Your task to perform on an android device: open app "Google News" Image 0: 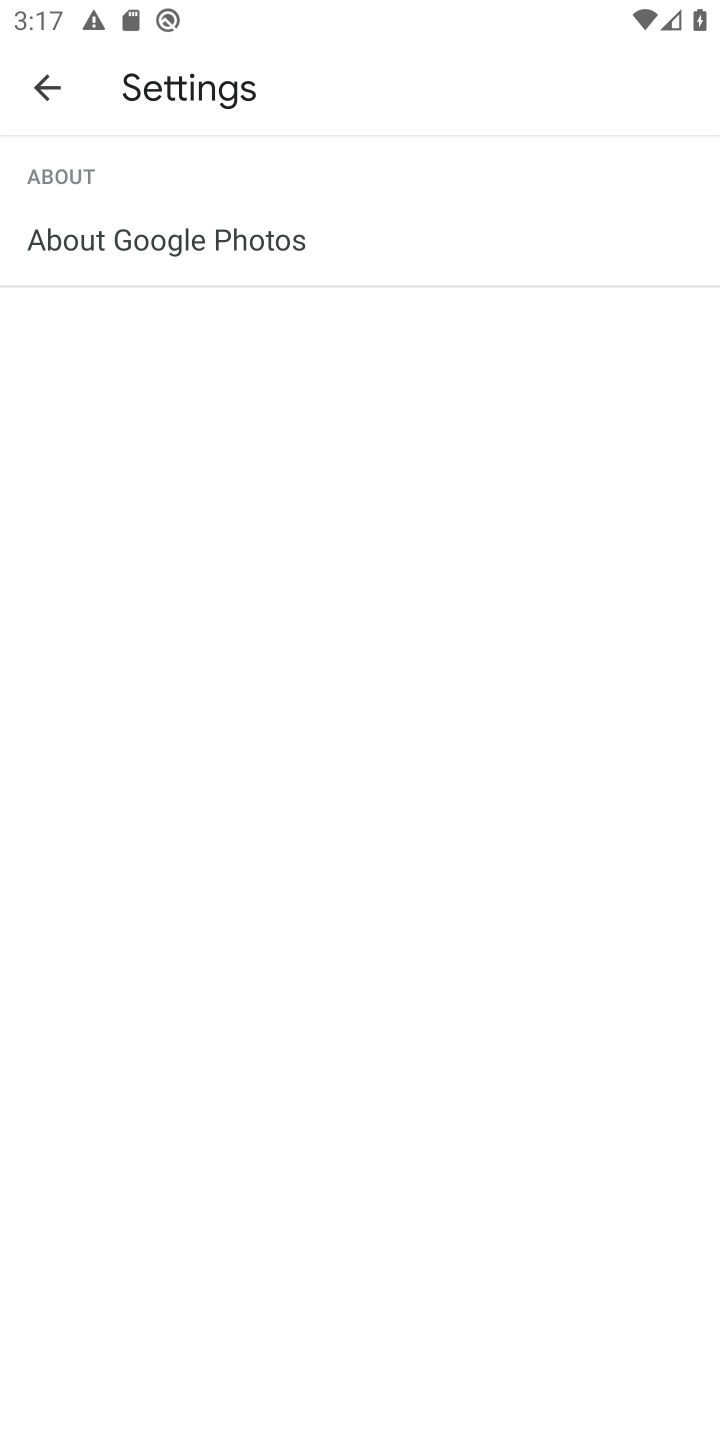
Step 0: press home button
Your task to perform on an android device: open app "Google News" Image 1: 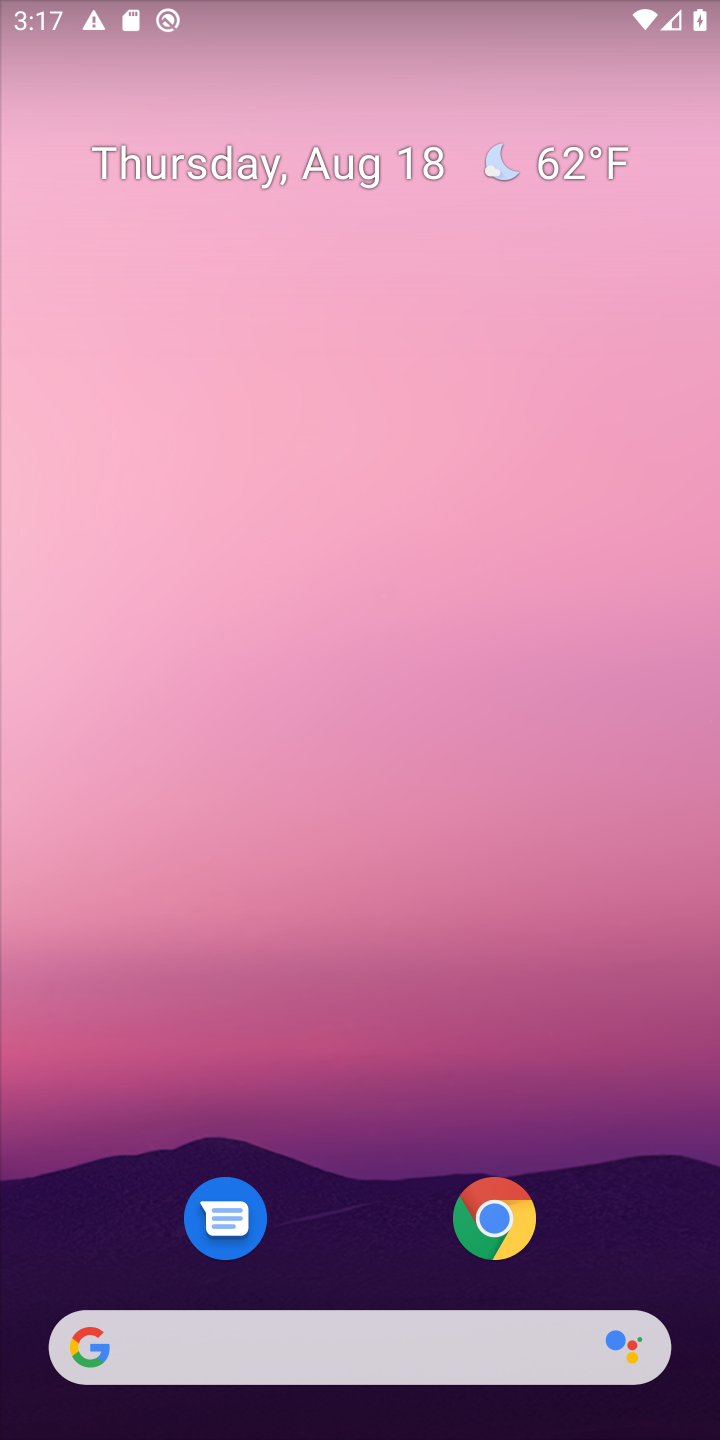
Step 1: drag from (350, 655) to (350, 239)
Your task to perform on an android device: open app "Google News" Image 2: 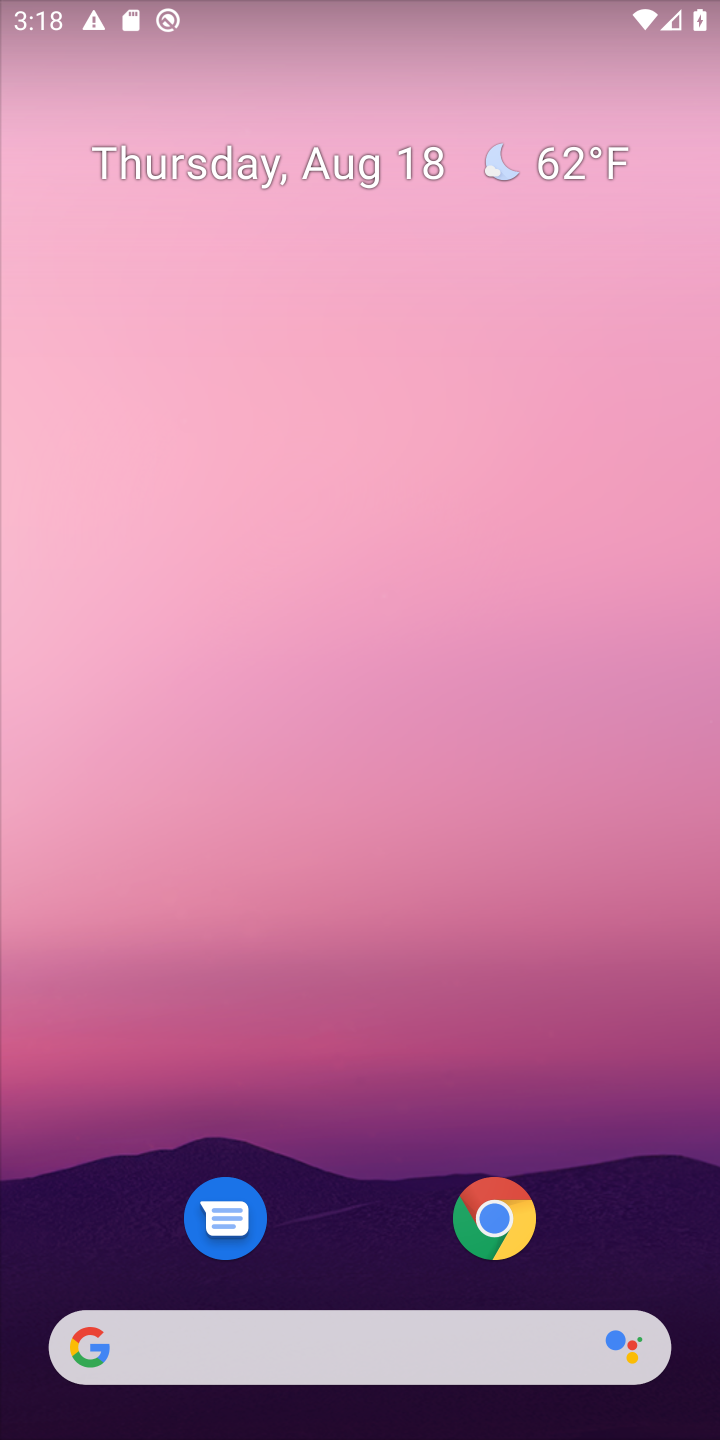
Step 2: drag from (344, 1103) to (304, 269)
Your task to perform on an android device: open app "Google News" Image 3: 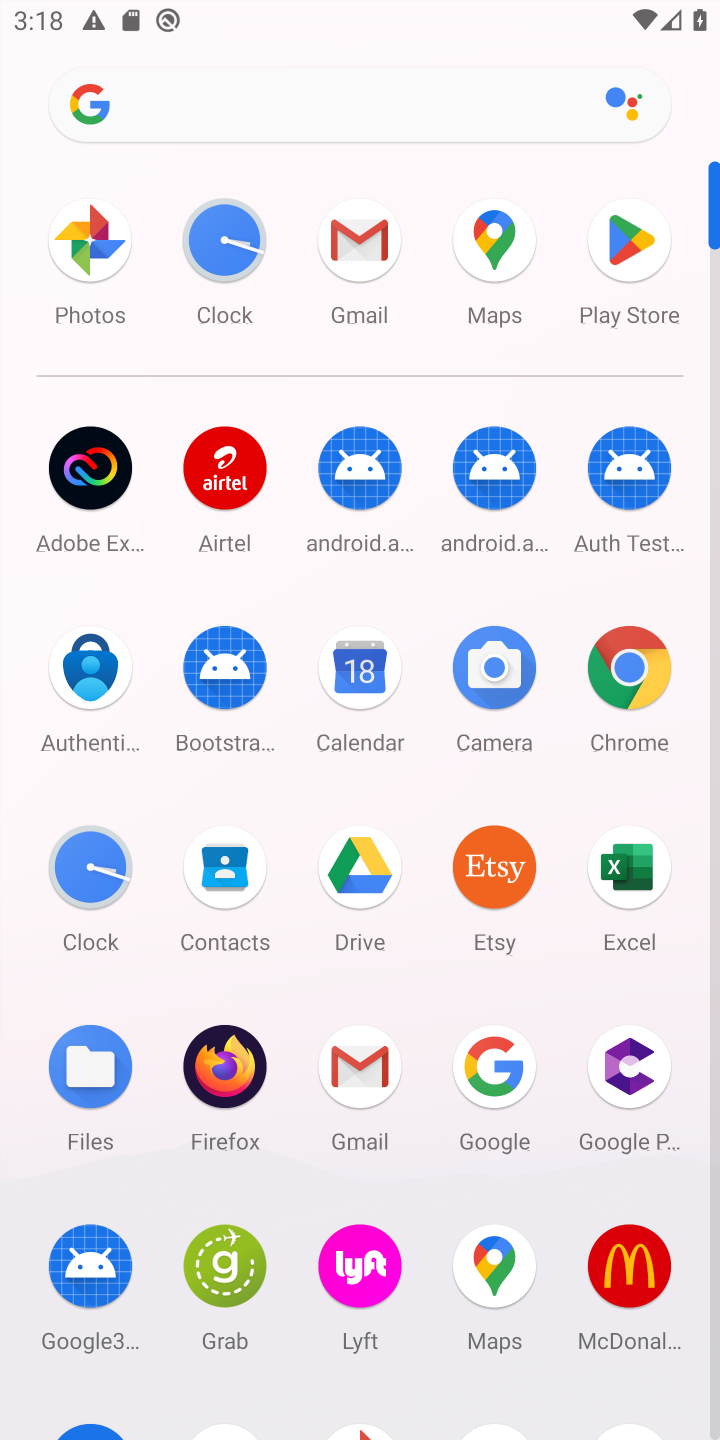
Step 3: click (616, 242)
Your task to perform on an android device: open app "Google News" Image 4: 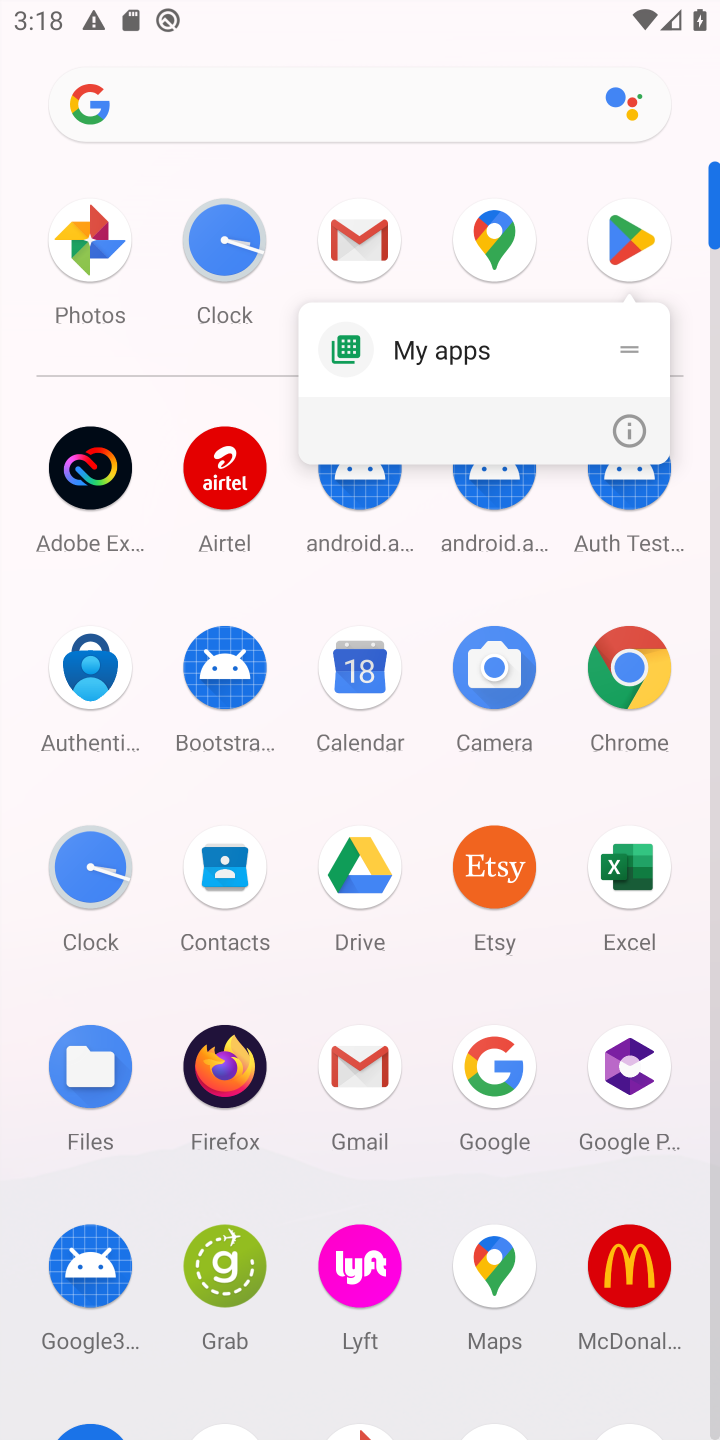
Step 4: click (612, 244)
Your task to perform on an android device: open app "Google News" Image 5: 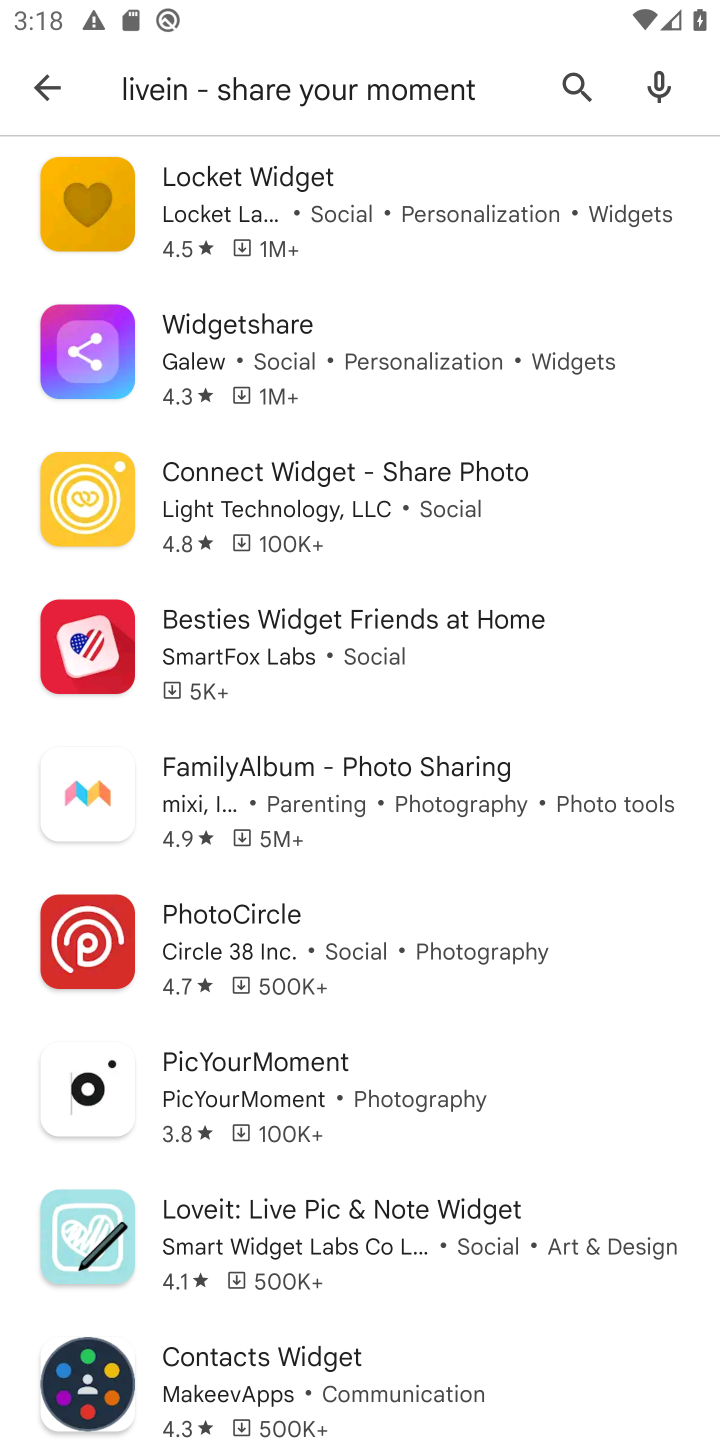
Step 5: click (566, 69)
Your task to perform on an android device: open app "Google News" Image 6: 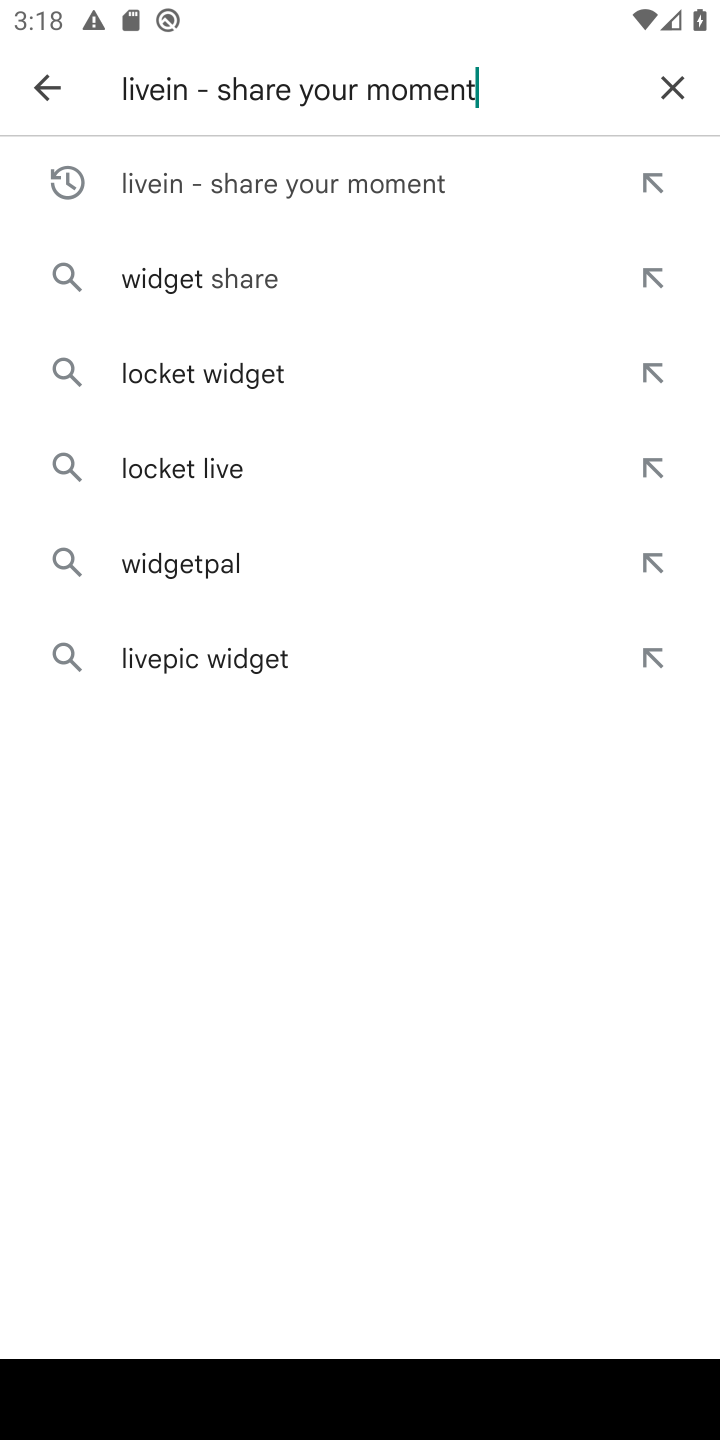
Step 6: click (655, 69)
Your task to perform on an android device: open app "Google News" Image 7: 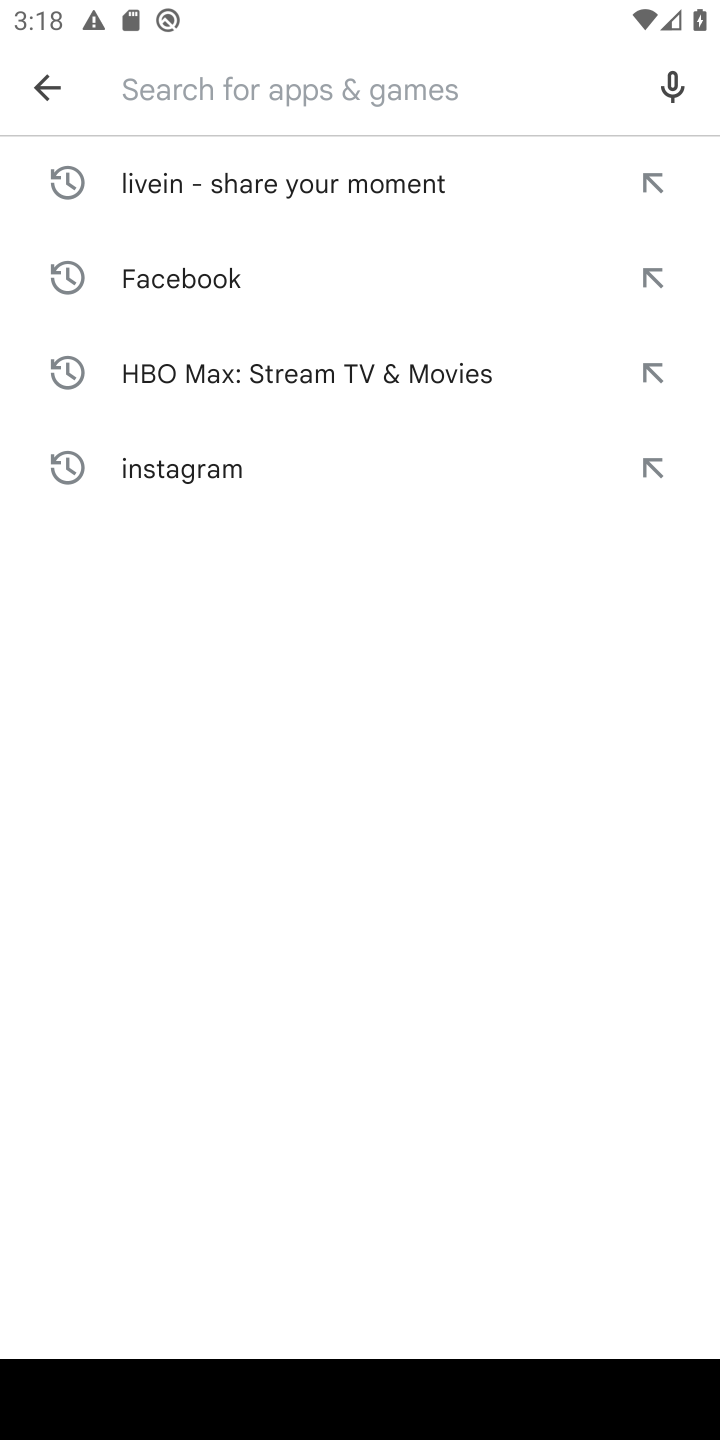
Step 7: type "Google News"
Your task to perform on an android device: open app "Google News" Image 8: 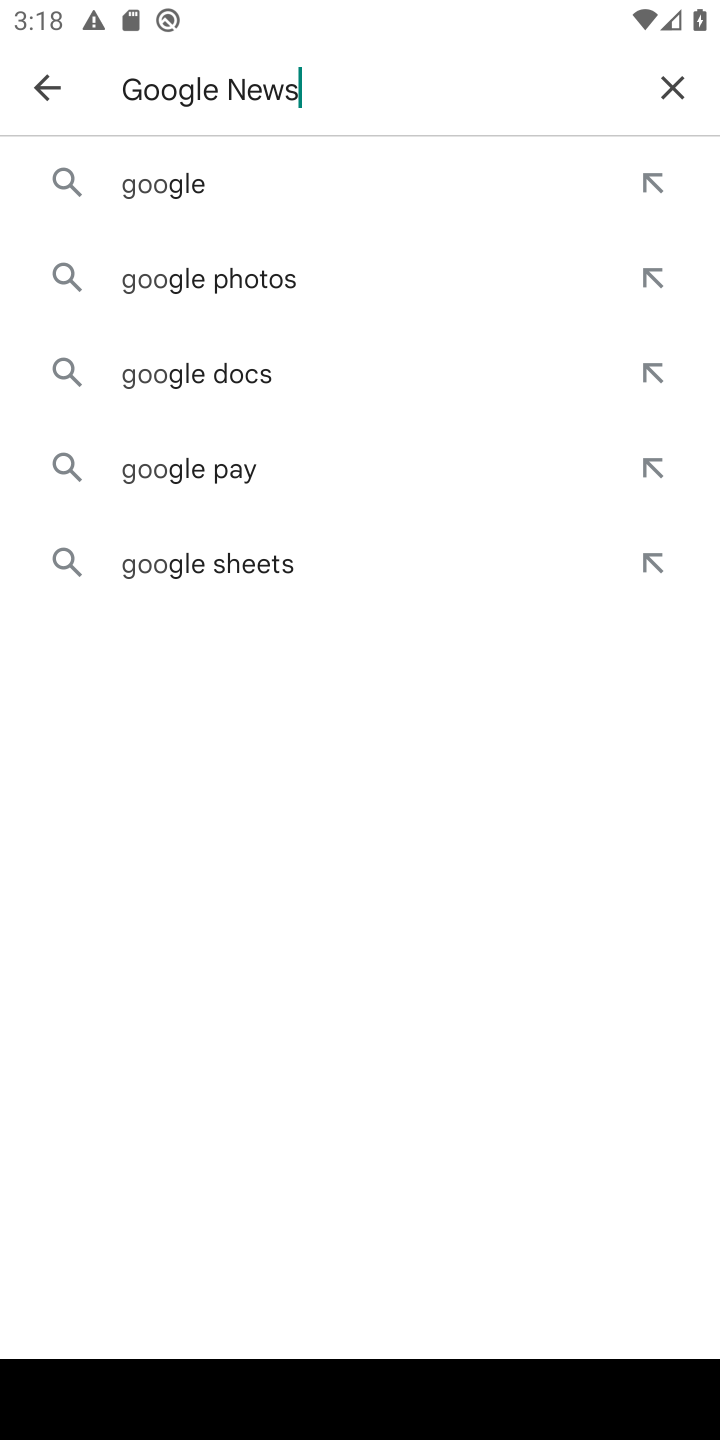
Step 8: type ""
Your task to perform on an android device: open app "Google News" Image 9: 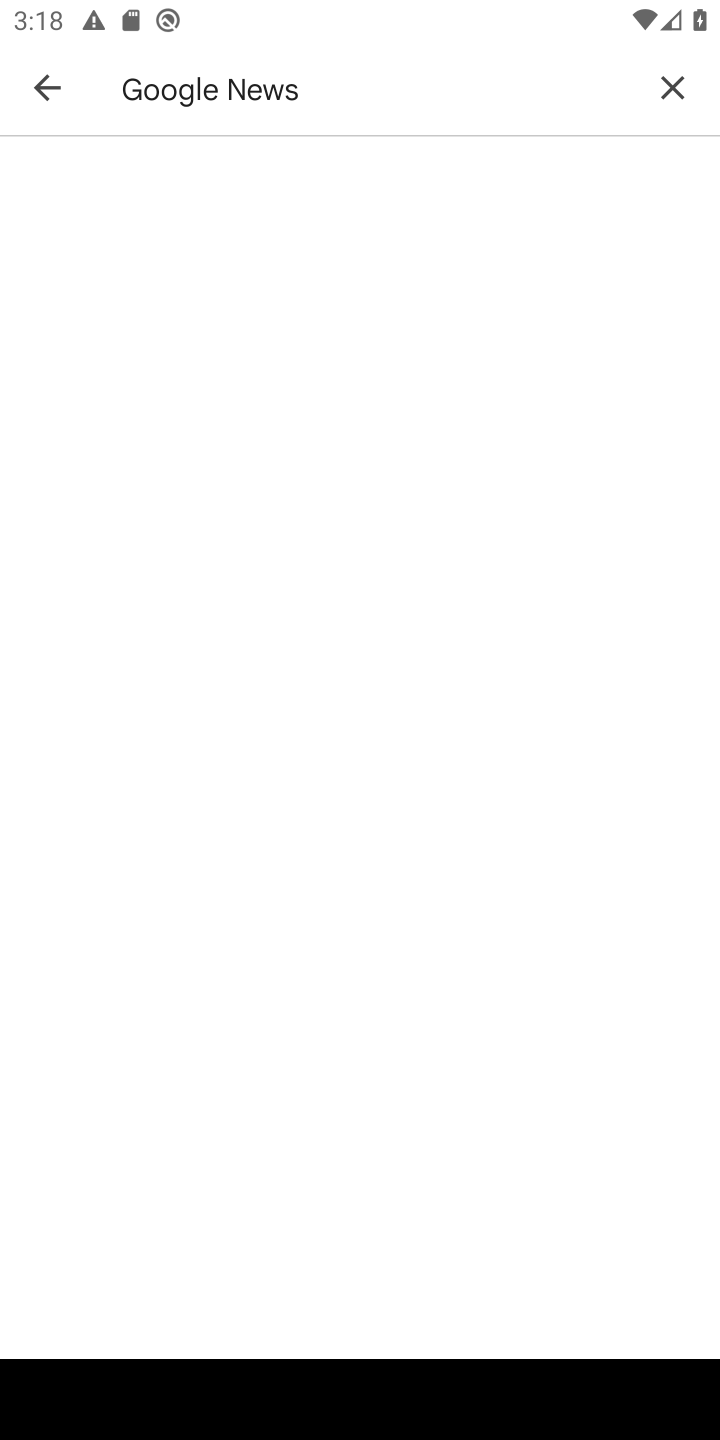
Step 9: click (450, 84)
Your task to perform on an android device: open app "Google News" Image 10: 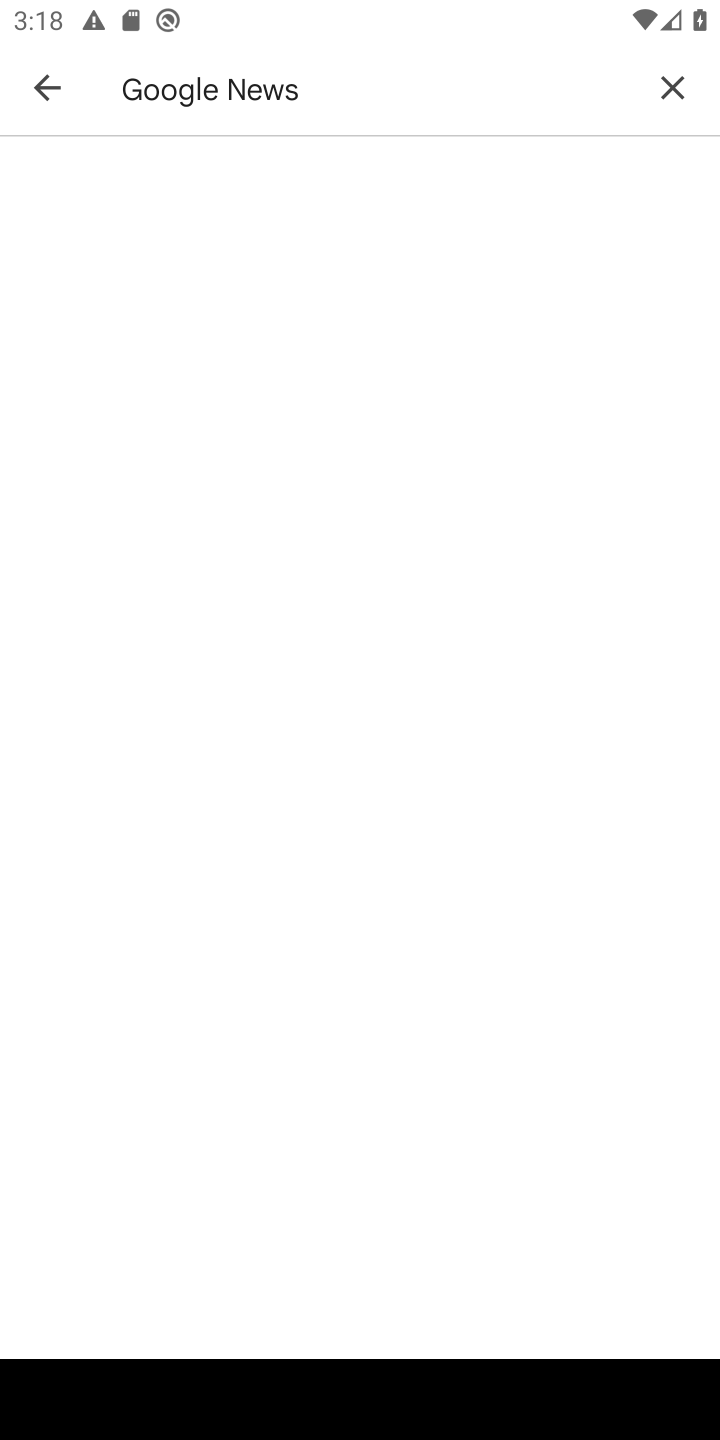
Step 10: task complete